Your task to perform on an android device: Show me popular games on the Play Store Image 0: 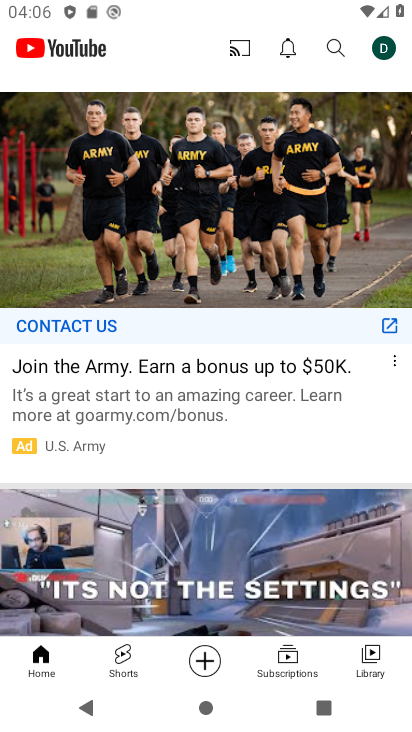
Step 0: press home button
Your task to perform on an android device: Show me popular games on the Play Store Image 1: 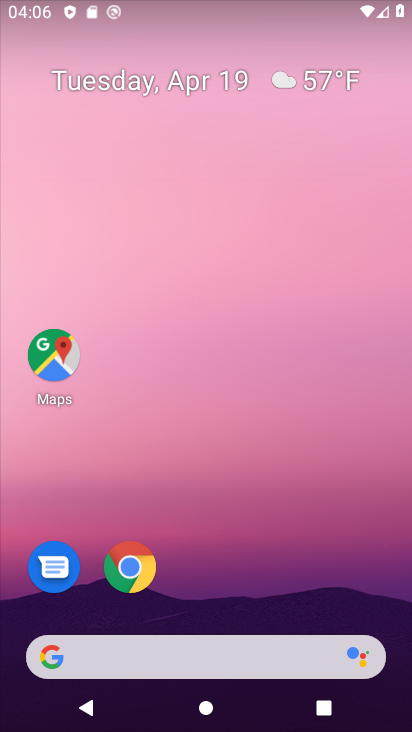
Step 1: drag from (364, 579) to (359, 109)
Your task to perform on an android device: Show me popular games on the Play Store Image 2: 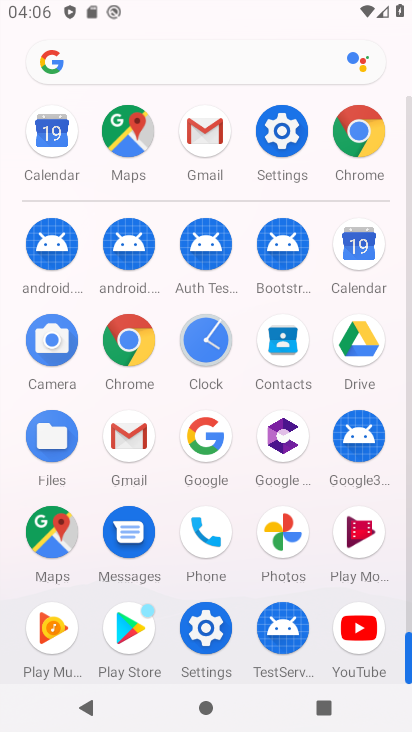
Step 2: click (125, 637)
Your task to perform on an android device: Show me popular games on the Play Store Image 3: 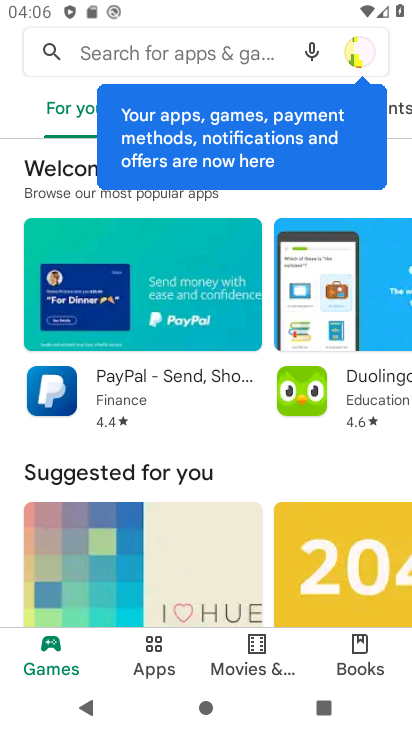
Step 3: task complete